Your task to perform on an android device: clear history in the chrome app Image 0: 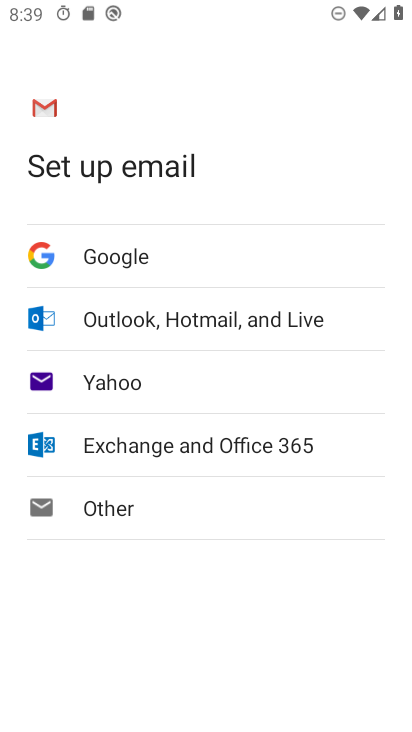
Step 0: press home button
Your task to perform on an android device: clear history in the chrome app Image 1: 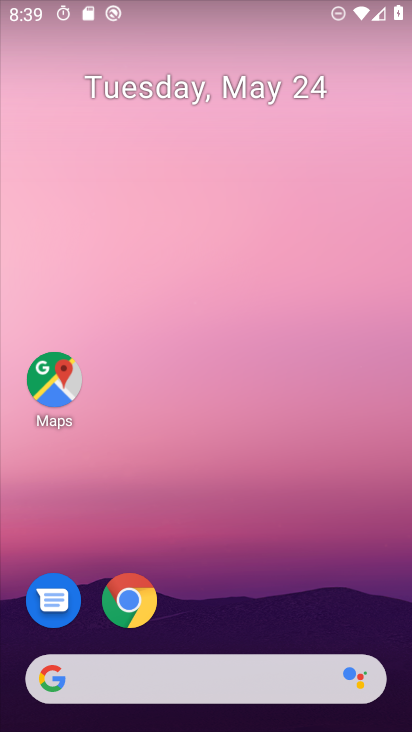
Step 1: click (132, 591)
Your task to perform on an android device: clear history in the chrome app Image 2: 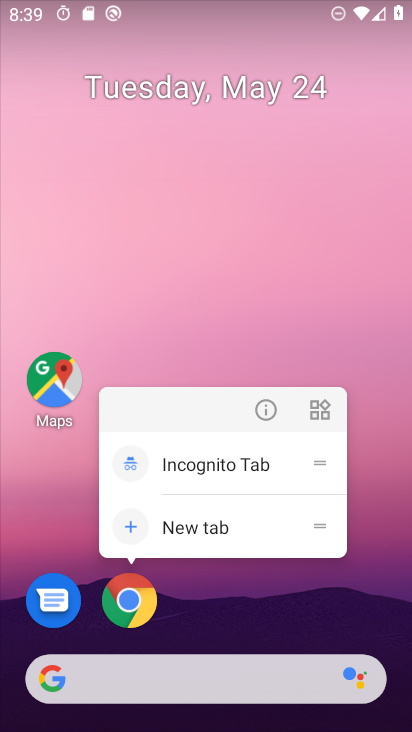
Step 2: click (138, 592)
Your task to perform on an android device: clear history in the chrome app Image 3: 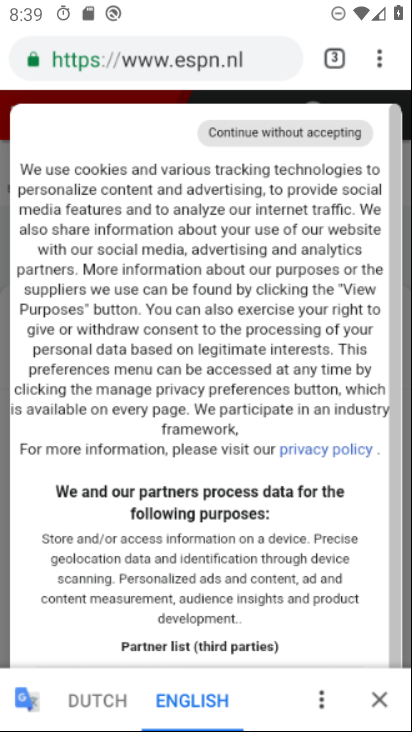
Step 3: drag from (377, 54) to (156, 326)
Your task to perform on an android device: clear history in the chrome app Image 4: 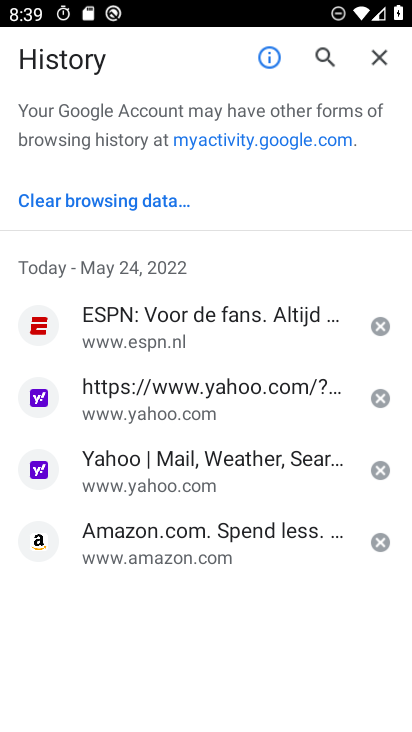
Step 4: click (91, 198)
Your task to perform on an android device: clear history in the chrome app Image 5: 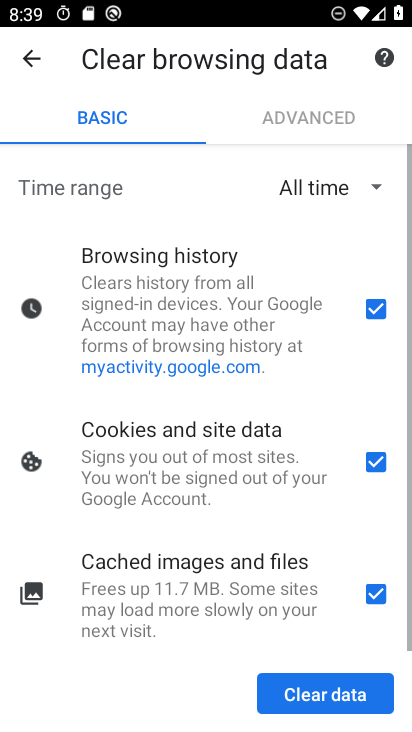
Step 5: click (307, 684)
Your task to perform on an android device: clear history in the chrome app Image 6: 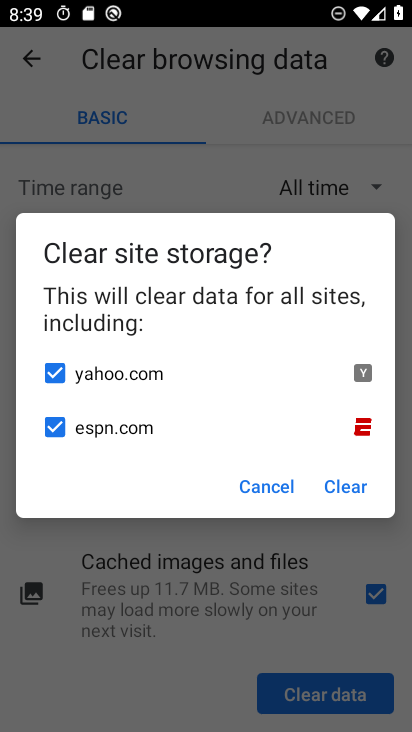
Step 6: click (354, 497)
Your task to perform on an android device: clear history in the chrome app Image 7: 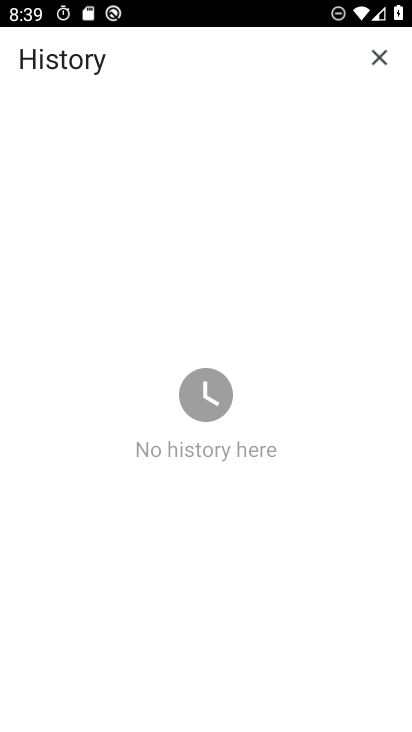
Step 7: task complete